Your task to perform on an android device: refresh tabs in the chrome app Image 0: 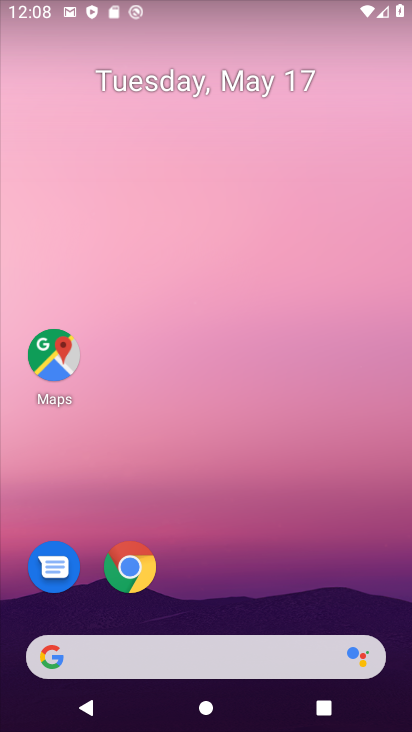
Step 0: click (139, 593)
Your task to perform on an android device: refresh tabs in the chrome app Image 1: 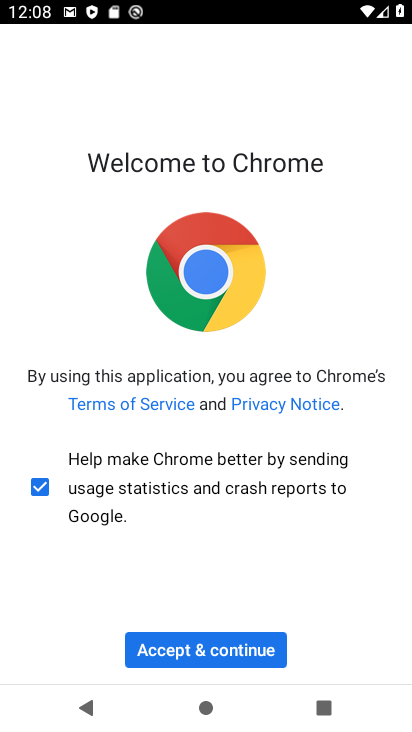
Step 1: click (216, 658)
Your task to perform on an android device: refresh tabs in the chrome app Image 2: 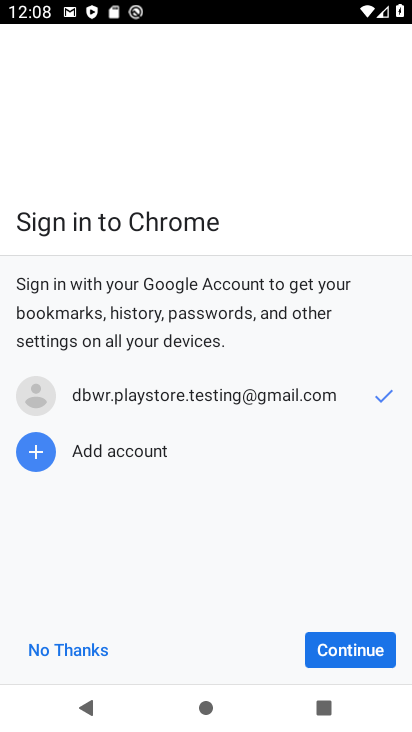
Step 2: click (366, 636)
Your task to perform on an android device: refresh tabs in the chrome app Image 3: 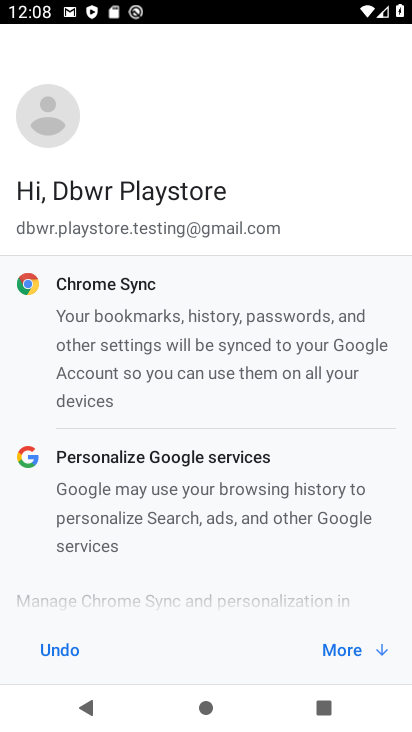
Step 3: click (342, 646)
Your task to perform on an android device: refresh tabs in the chrome app Image 4: 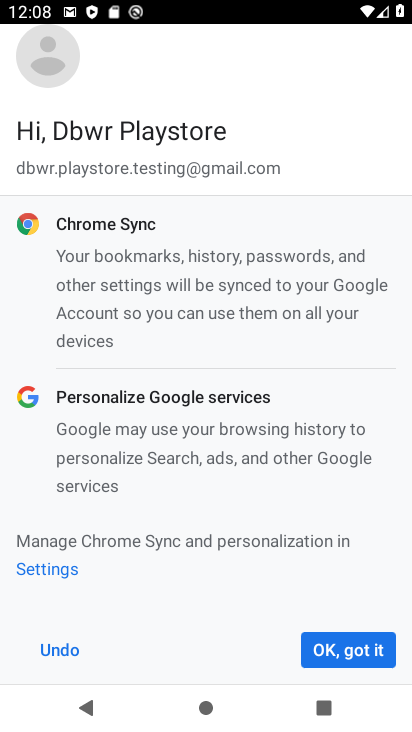
Step 4: click (342, 646)
Your task to perform on an android device: refresh tabs in the chrome app Image 5: 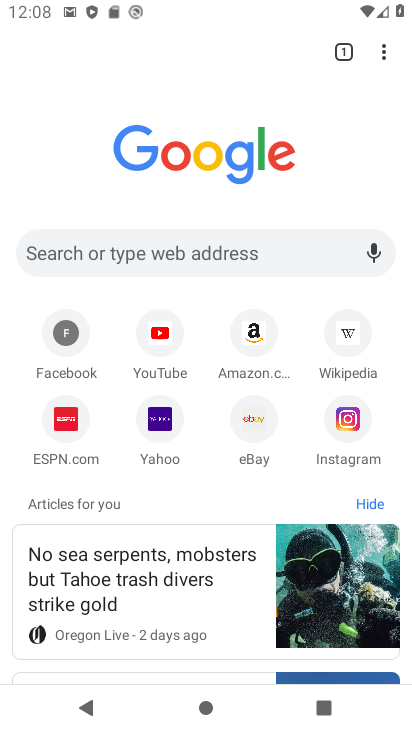
Step 5: click (387, 51)
Your task to perform on an android device: refresh tabs in the chrome app Image 6: 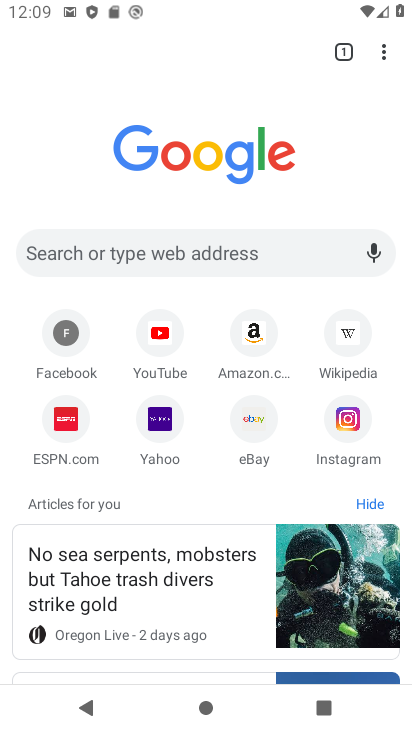
Step 6: task complete